Your task to perform on an android device: visit the assistant section in the google photos Image 0: 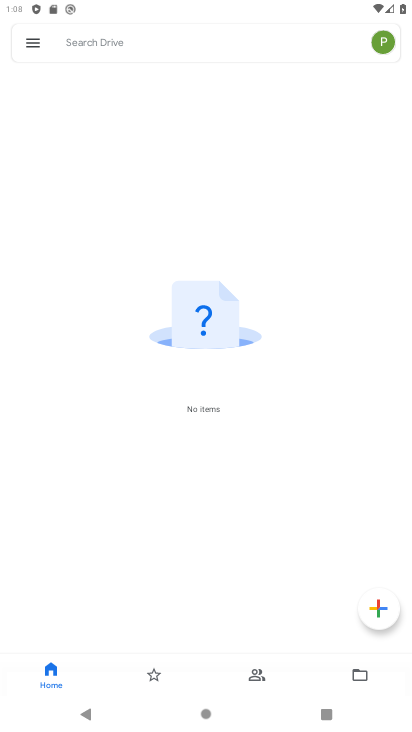
Step 0: press home button
Your task to perform on an android device: visit the assistant section in the google photos Image 1: 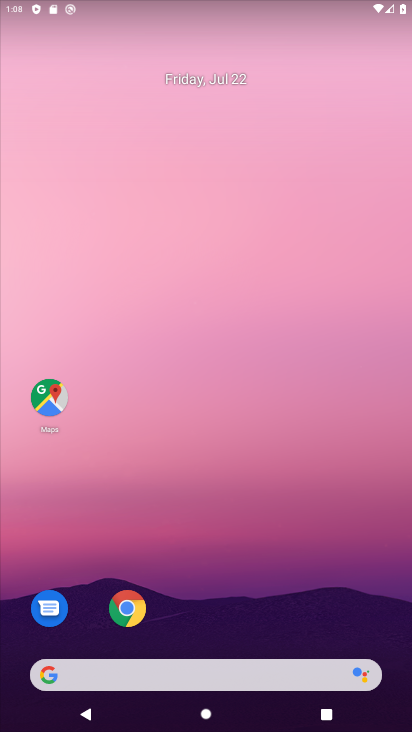
Step 1: drag from (391, 686) to (334, 205)
Your task to perform on an android device: visit the assistant section in the google photos Image 2: 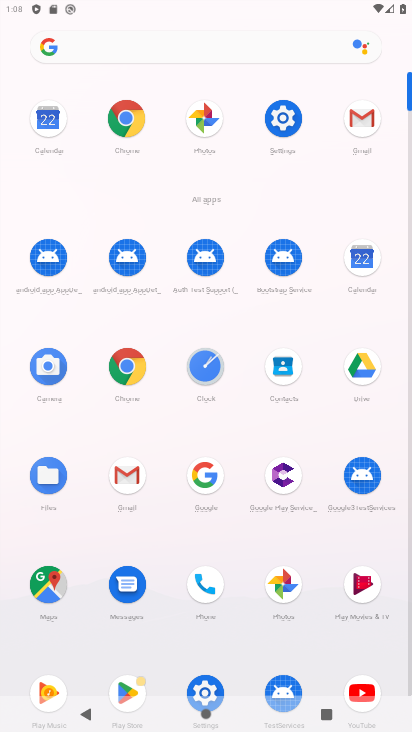
Step 2: click (275, 588)
Your task to perform on an android device: visit the assistant section in the google photos Image 3: 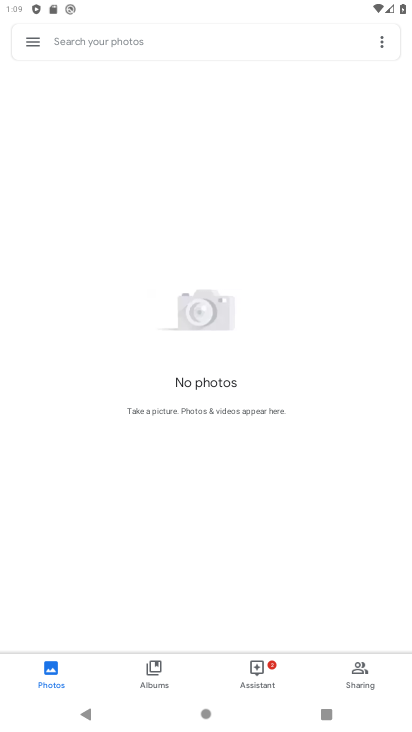
Step 3: click (248, 672)
Your task to perform on an android device: visit the assistant section in the google photos Image 4: 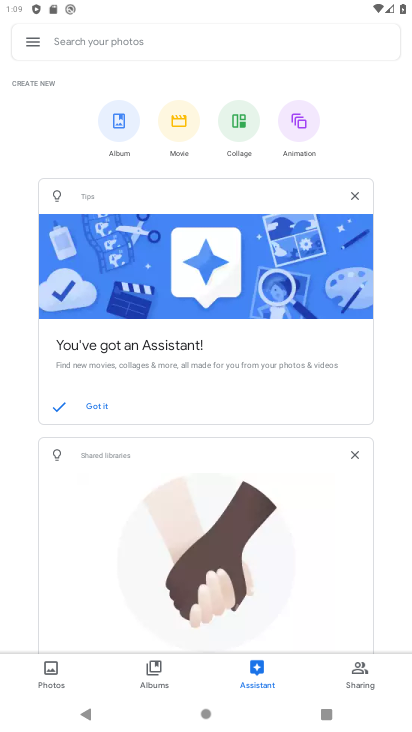
Step 4: task complete